Your task to perform on an android device: delete location history Image 0: 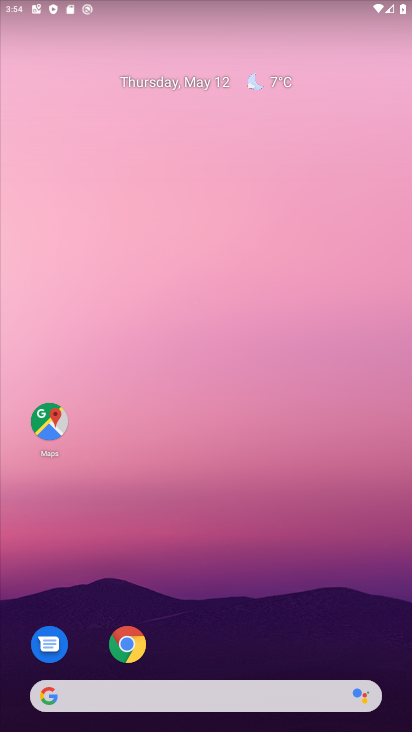
Step 0: drag from (215, 651) to (234, 136)
Your task to perform on an android device: delete location history Image 1: 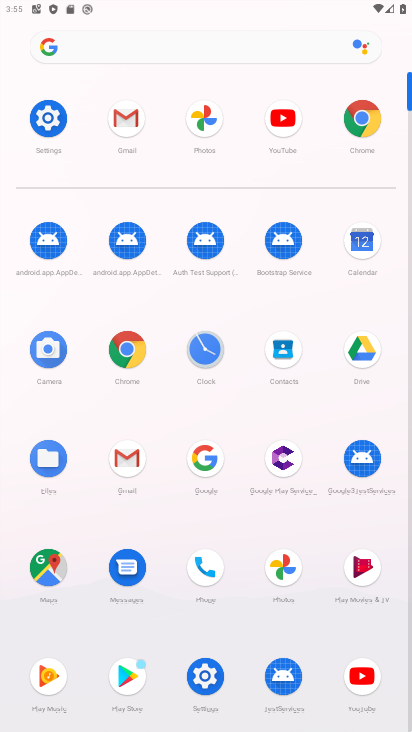
Step 1: click (50, 565)
Your task to perform on an android device: delete location history Image 2: 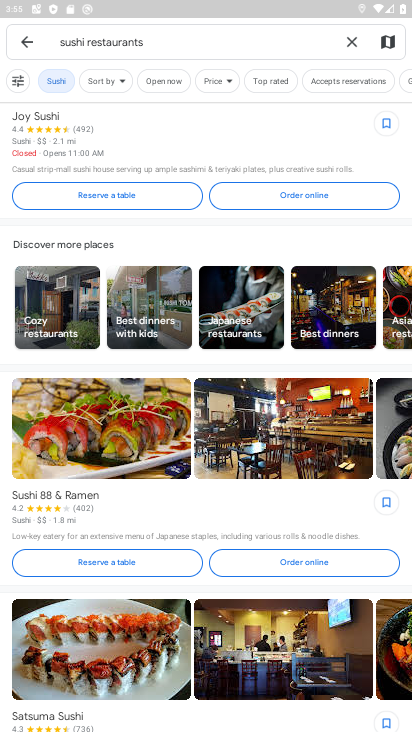
Step 2: click (23, 26)
Your task to perform on an android device: delete location history Image 3: 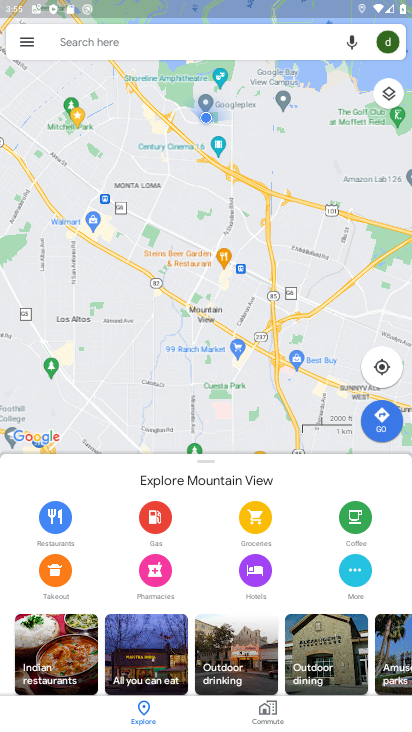
Step 3: click (31, 44)
Your task to perform on an android device: delete location history Image 4: 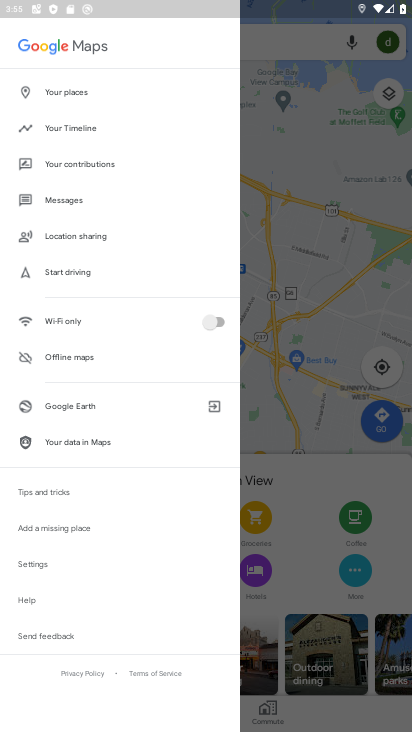
Step 4: click (60, 120)
Your task to perform on an android device: delete location history Image 5: 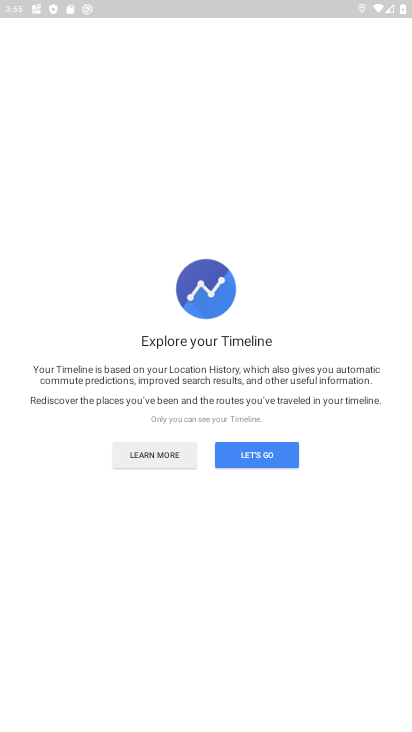
Step 5: click (253, 456)
Your task to perform on an android device: delete location history Image 6: 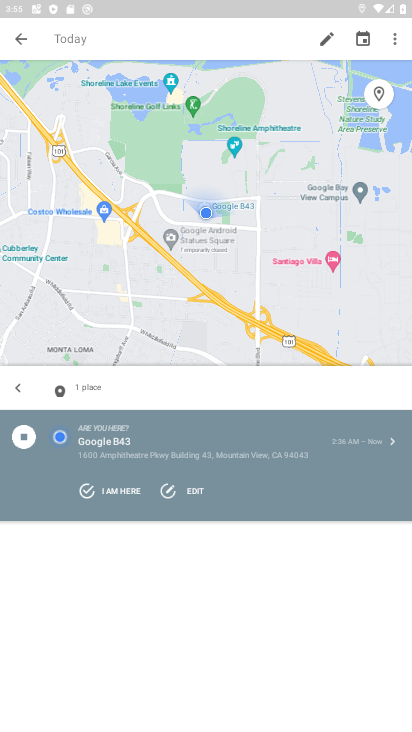
Step 6: click (392, 34)
Your task to perform on an android device: delete location history Image 7: 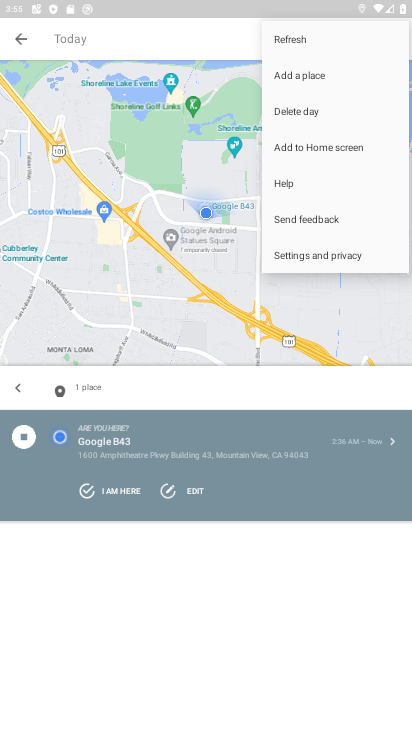
Step 7: click (323, 257)
Your task to perform on an android device: delete location history Image 8: 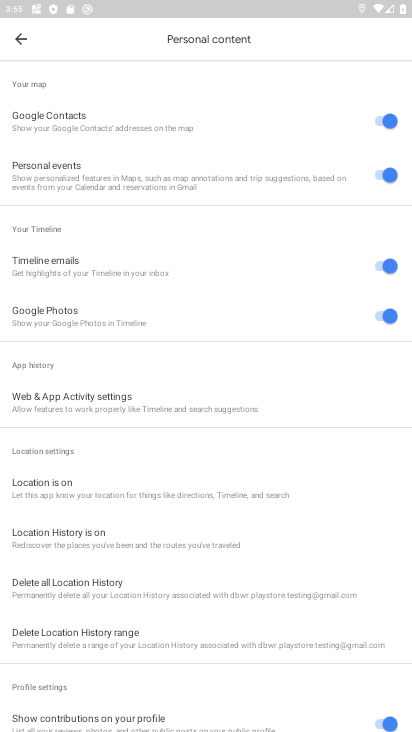
Step 8: click (90, 589)
Your task to perform on an android device: delete location history Image 9: 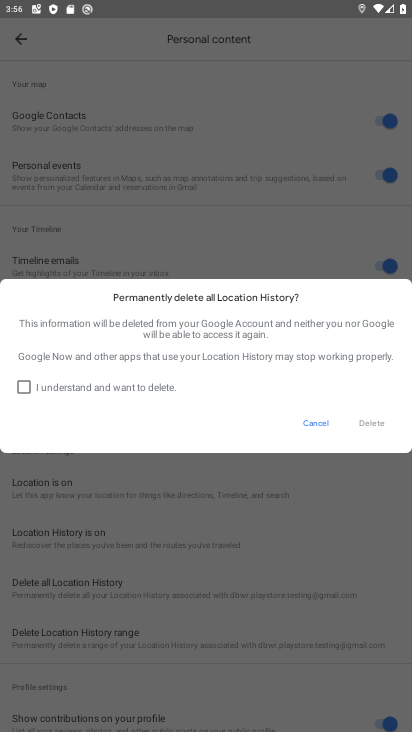
Step 9: click (25, 387)
Your task to perform on an android device: delete location history Image 10: 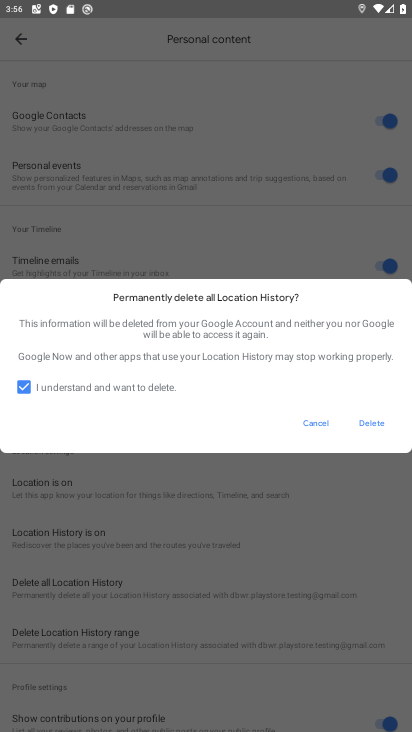
Step 10: click (371, 425)
Your task to perform on an android device: delete location history Image 11: 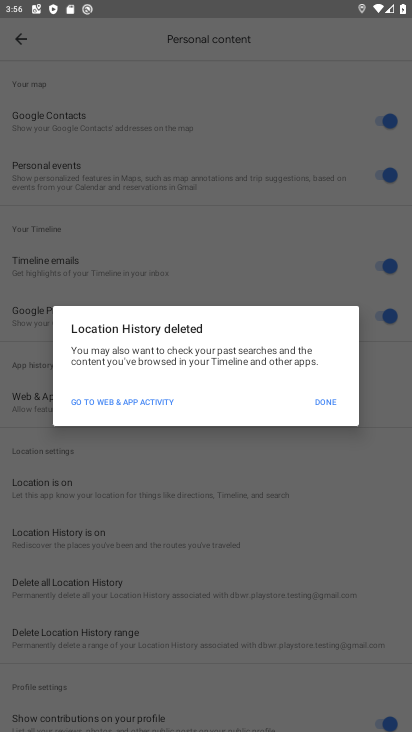
Step 11: click (321, 403)
Your task to perform on an android device: delete location history Image 12: 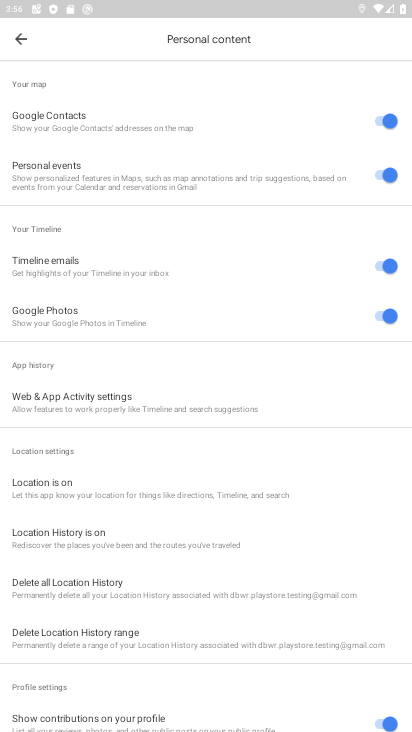
Step 12: task complete